Your task to perform on an android device: Clear the shopping cart on costco.com. Search for "dell xps" on costco.com, select the first entry, and add it to the cart. Image 0: 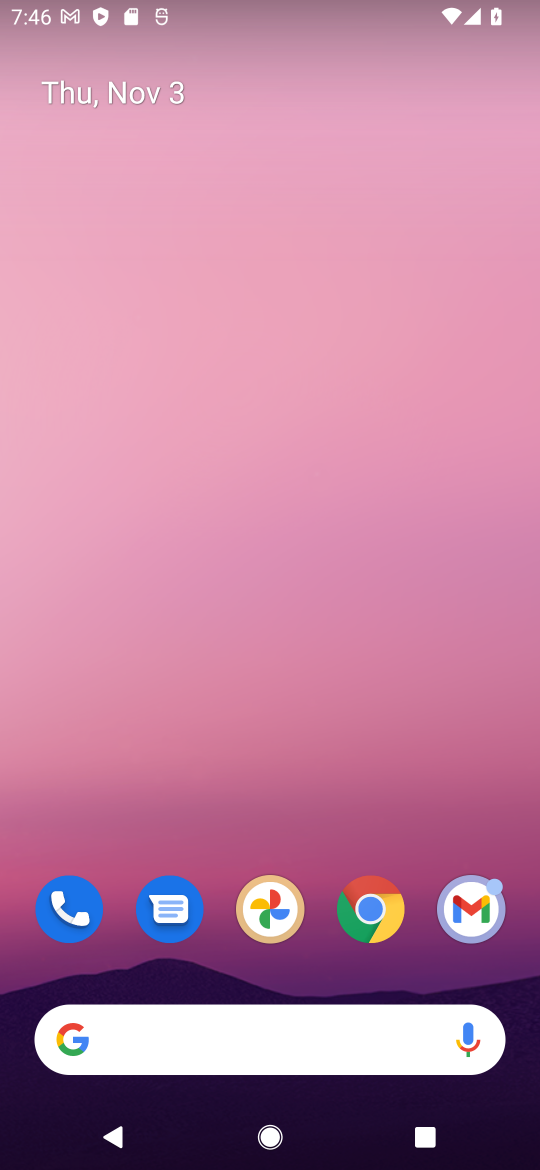
Step 0: drag from (98, 1039) to (227, 251)
Your task to perform on an android device: Clear the shopping cart on costco.com. Search for "dell xps" on costco.com, select the first entry, and add it to the cart. Image 1: 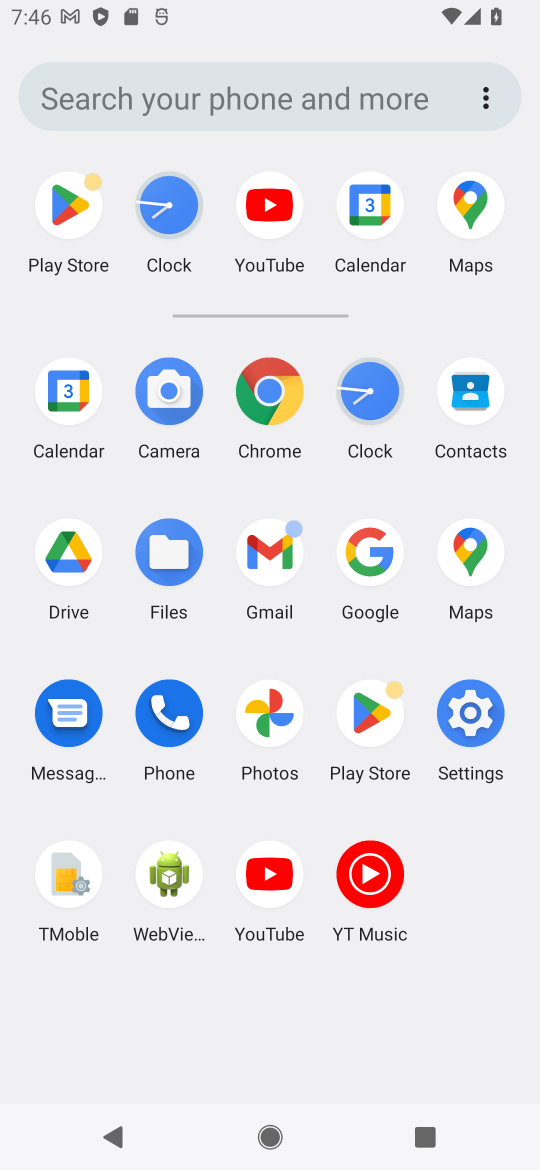
Step 1: click (377, 550)
Your task to perform on an android device: Clear the shopping cart on costco.com. Search for "dell xps" on costco.com, select the first entry, and add it to the cart. Image 2: 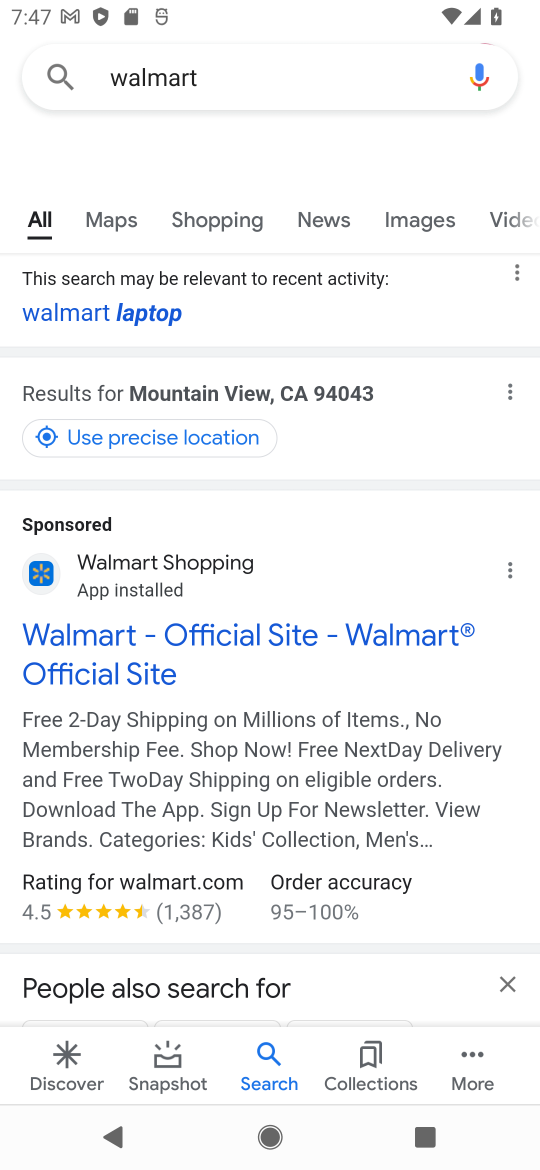
Step 2: click (253, 76)
Your task to perform on an android device: Clear the shopping cart on costco.com. Search for "dell xps" on costco.com, select the first entry, and add it to the cart. Image 3: 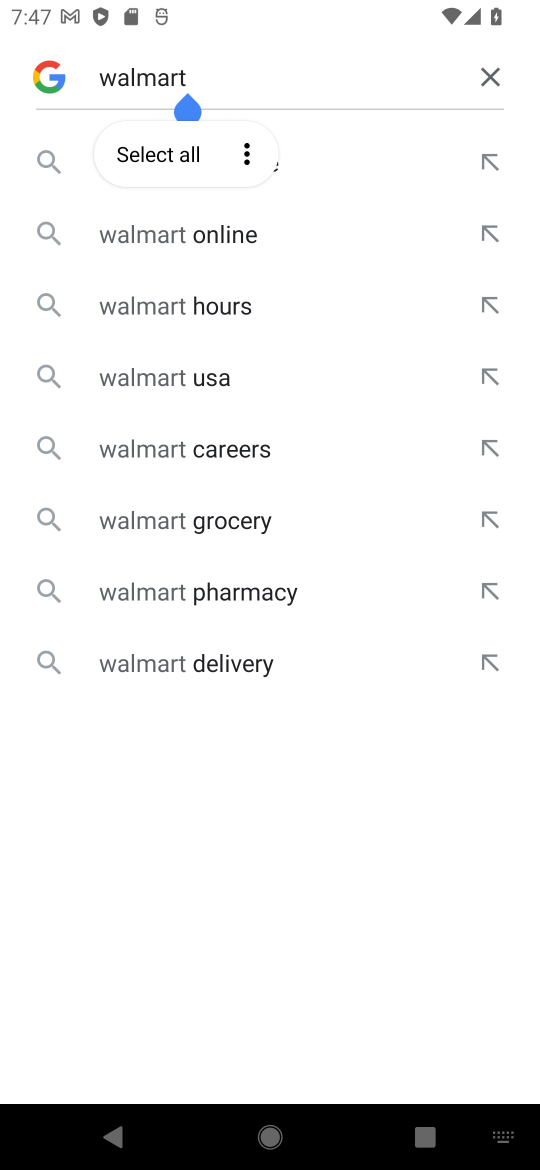
Step 3: click (483, 74)
Your task to perform on an android device: Clear the shopping cart on costco.com. Search for "dell xps" on costco.com, select the first entry, and add it to the cart. Image 4: 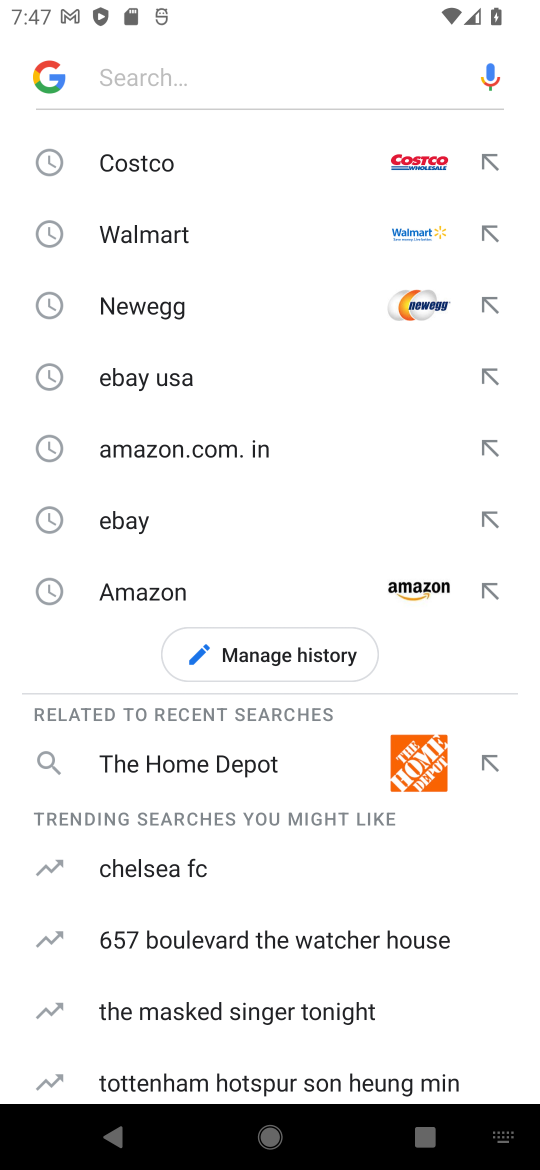
Step 4: click (200, 69)
Your task to perform on an android device: Clear the shopping cart on costco.com. Search for "dell xps" on costco.com, select the first entry, and add it to the cart. Image 5: 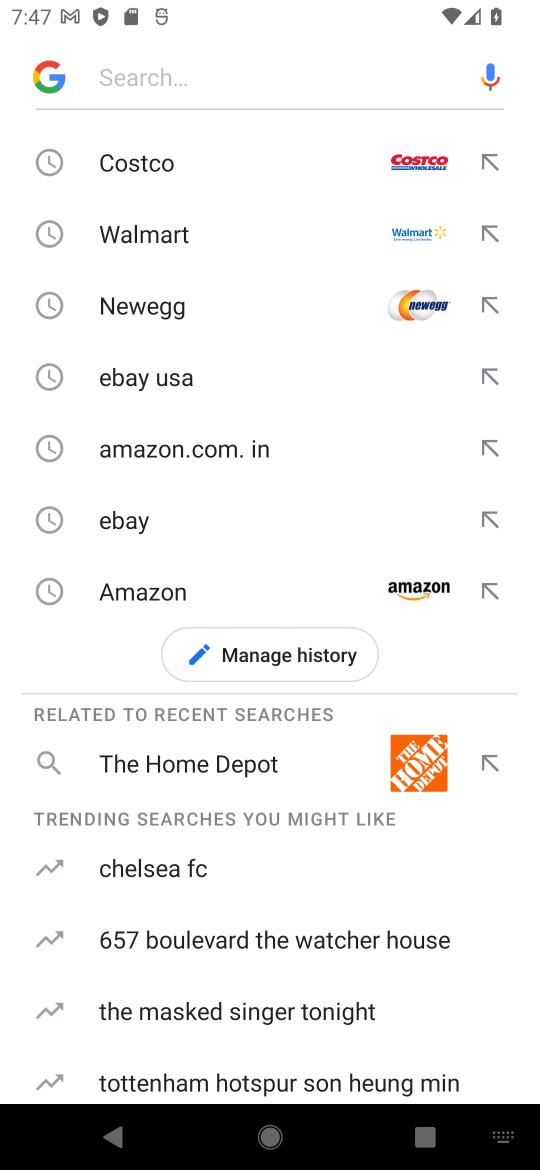
Step 5: type "costco.com "
Your task to perform on an android device: Clear the shopping cart on costco.com. Search for "dell xps" on costco.com, select the first entry, and add it to the cart. Image 6: 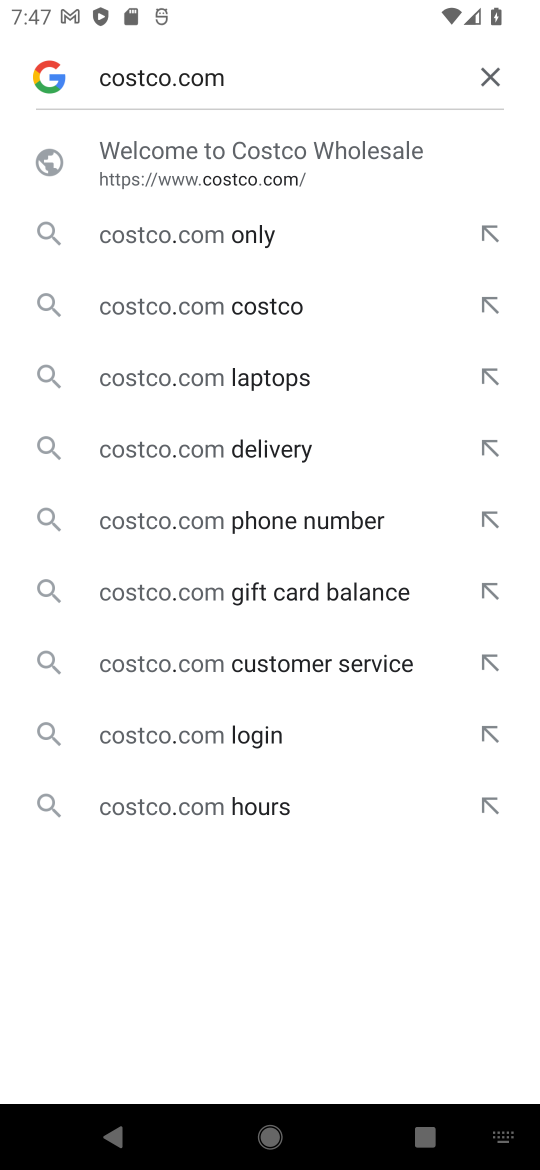
Step 6: click (236, 141)
Your task to perform on an android device: Clear the shopping cart on costco.com. Search for "dell xps" on costco.com, select the first entry, and add it to the cart. Image 7: 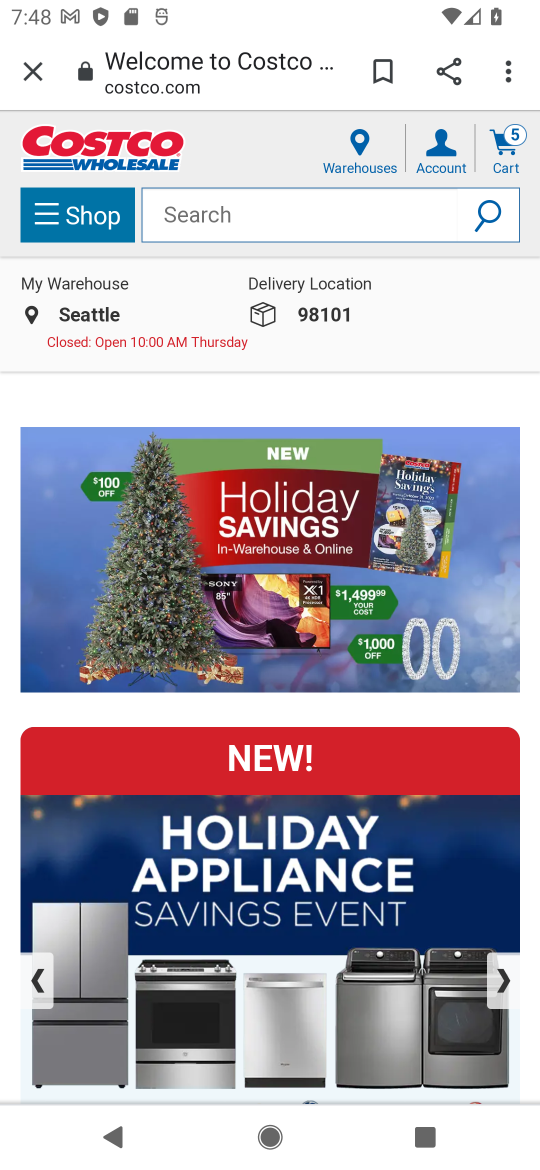
Step 7: click (264, 210)
Your task to perform on an android device: Clear the shopping cart on costco.com. Search for "dell xps" on costco.com, select the first entry, and add it to the cart. Image 8: 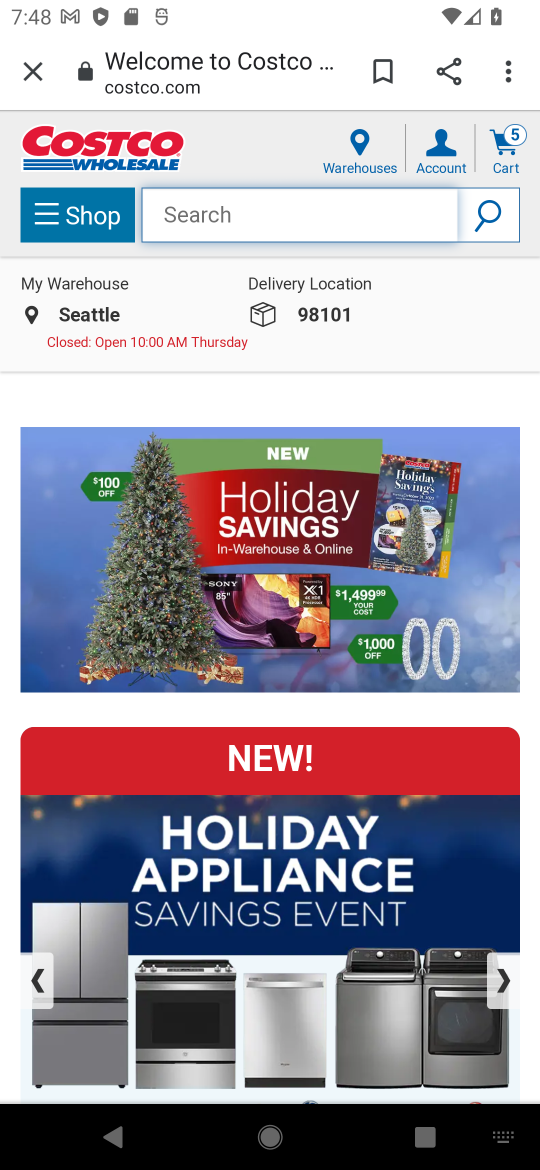
Step 8: type "dell xps "
Your task to perform on an android device: Clear the shopping cart on costco.com. Search for "dell xps" on costco.com, select the first entry, and add it to the cart. Image 9: 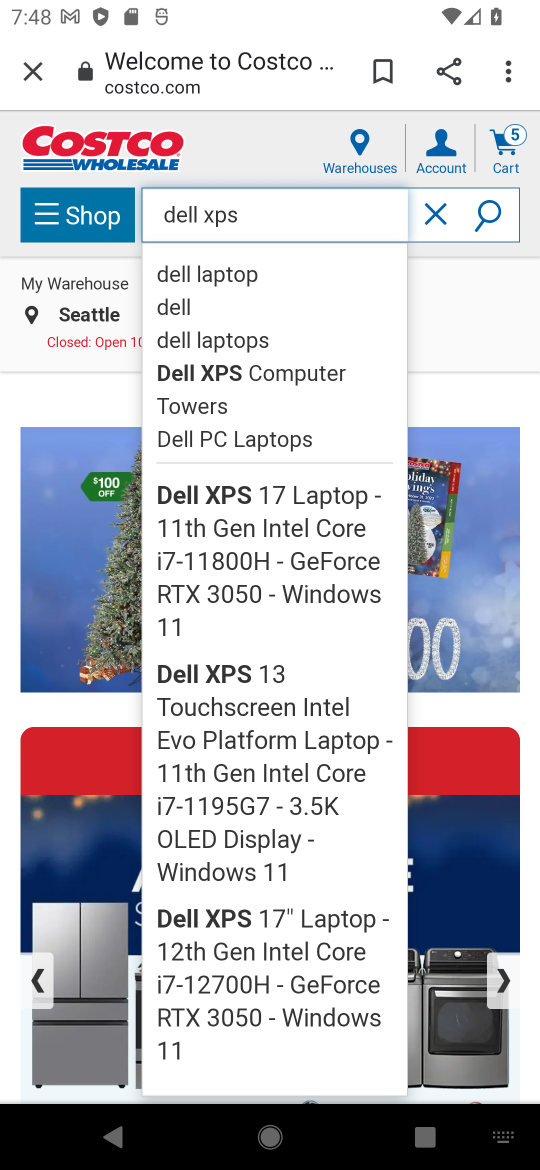
Step 9: click (228, 269)
Your task to perform on an android device: Clear the shopping cart on costco.com. Search for "dell xps" on costco.com, select the first entry, and add it to the cart. Image 10: 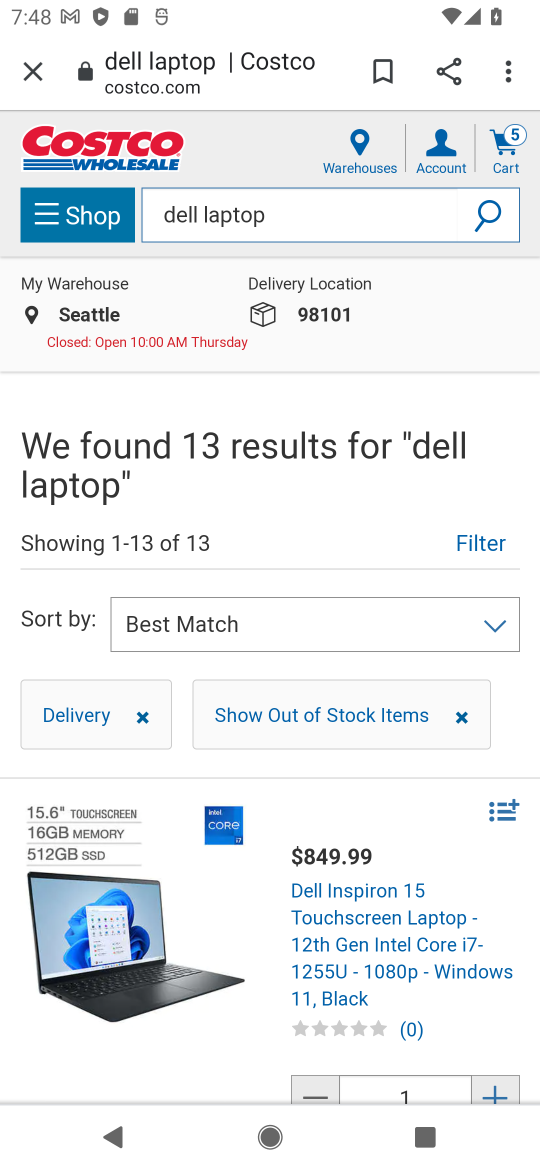
Step 10: drag from (361, 957) to (342, 373)
Your task to perform on an android device: Clear the shopping cart on costco.com. Search for "dell xps" on costco.com, select the first entry, and add it to the cart. Image 11: 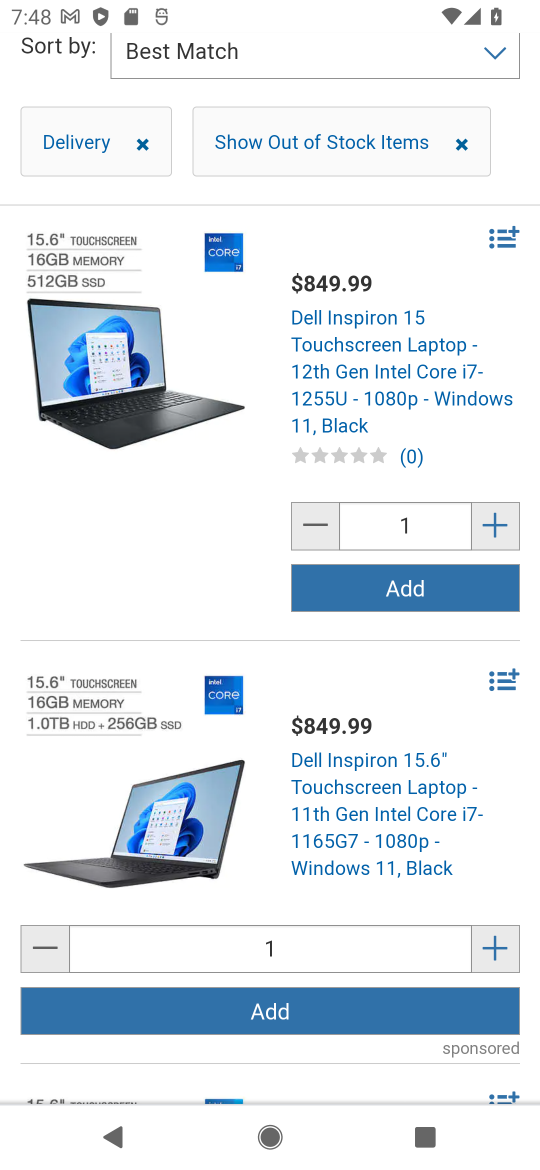
Step 11: click (390, 589)
Your task to perform on an android device: Clear the shopping cart on costco.com. Search for "dell xps" on costco.com, select the first entry, and add it to the cart. Image 12: 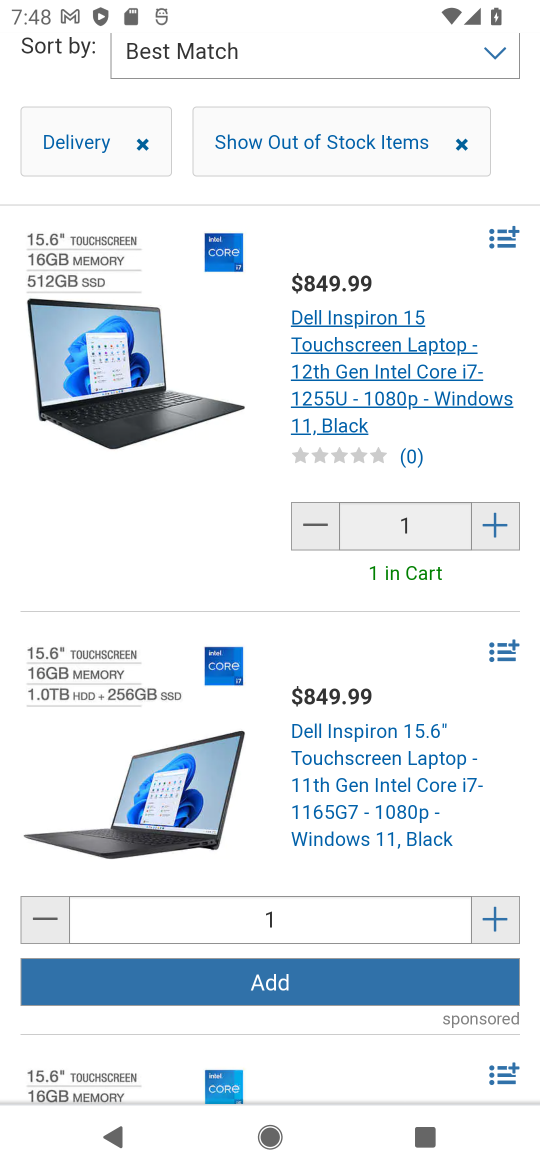
Step 12: task complete